Your task to perform on an android device: Do I have any events tomorrow? Image 0: 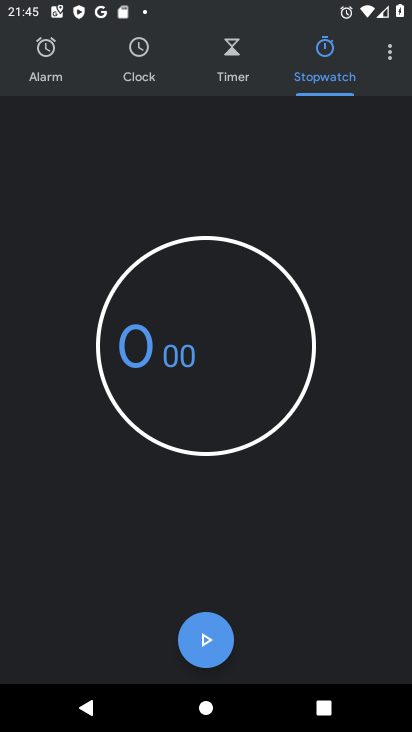
Step 0: press home button
Your task to perform on an android device: Do I have any events tomorrow? Image 1: 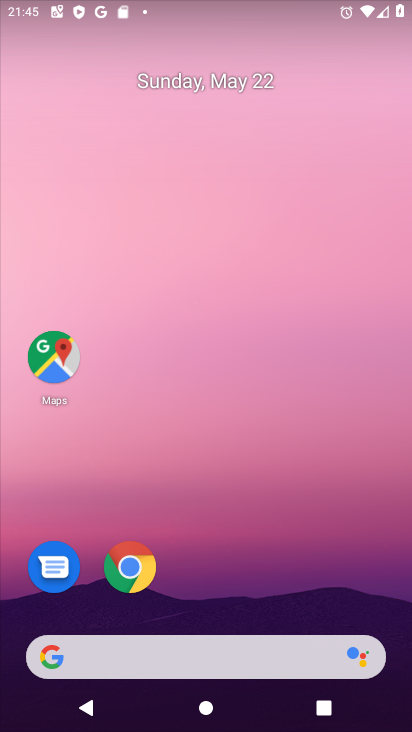
Step 1: drag from (216, 584) to (260, 11)
Your task to perform on an android device: Do I have any events tomorrow? Image 2: 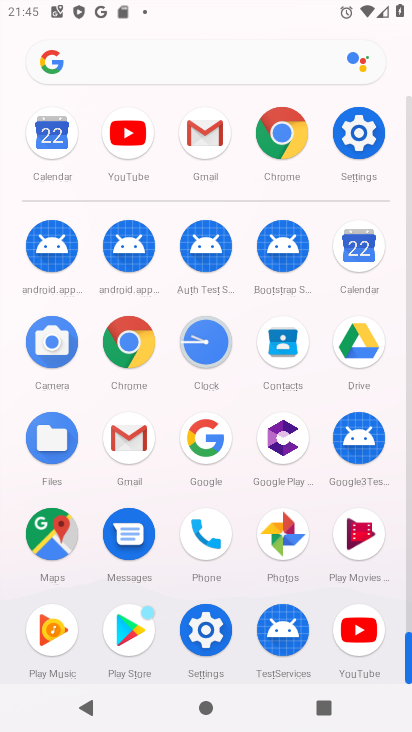
Step 2: click (366, 246)
Your task to perform on an android device: Do I have any events tomorrow? Image 3: 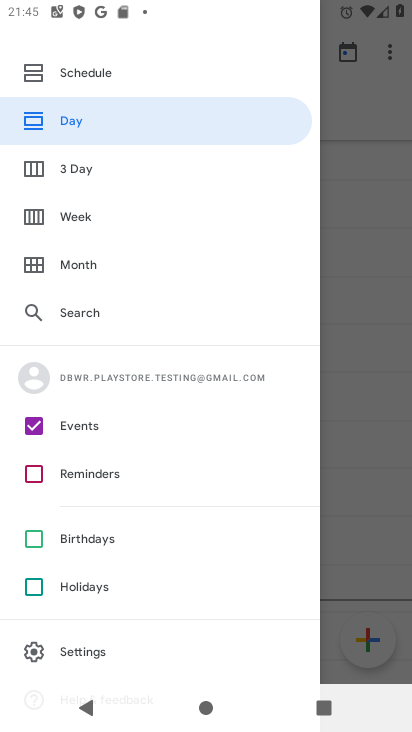
Step 3: click (84, 169)
Your task to perform on an android device: Do I have any events tomorrow? Image 4: 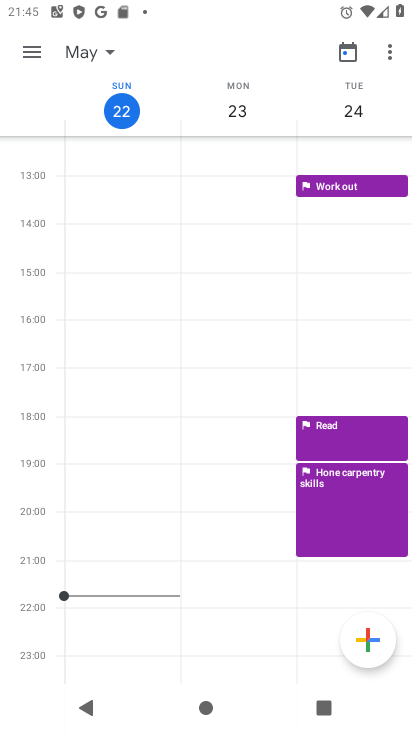
Step 4: drag from (202, 374) to (196, 561)
Your task to perform on an android device: Do I have any events tomorrow? Image 5: 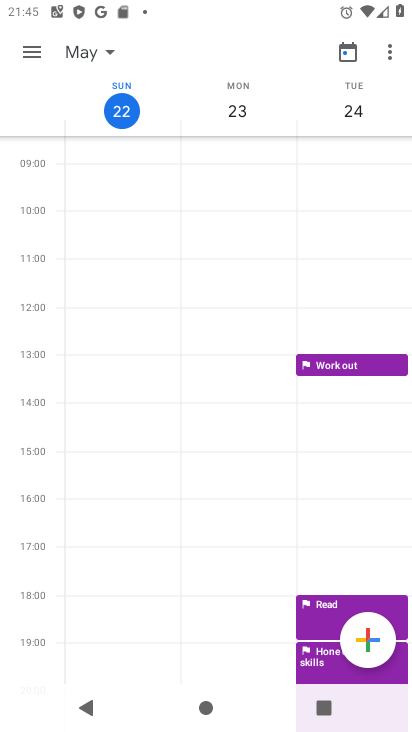
Step 5: click (34, 54)
Your task to perform on an android device: Do I have any events tomorrow? Image 6: 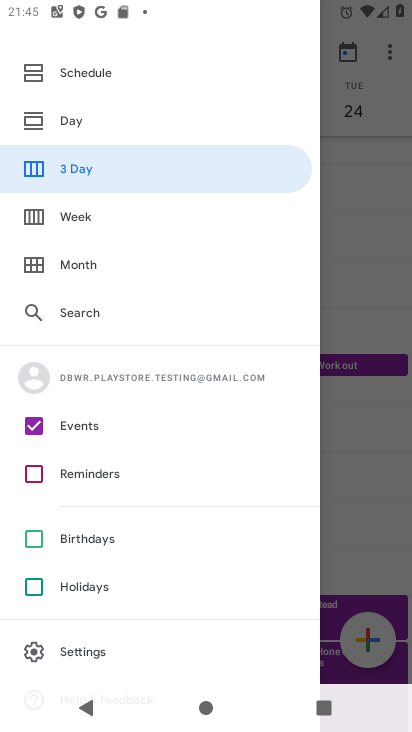
Step 6: click (375, 312)
Your task to perform on an android device: Do I have any events tomorrow? Image 7: 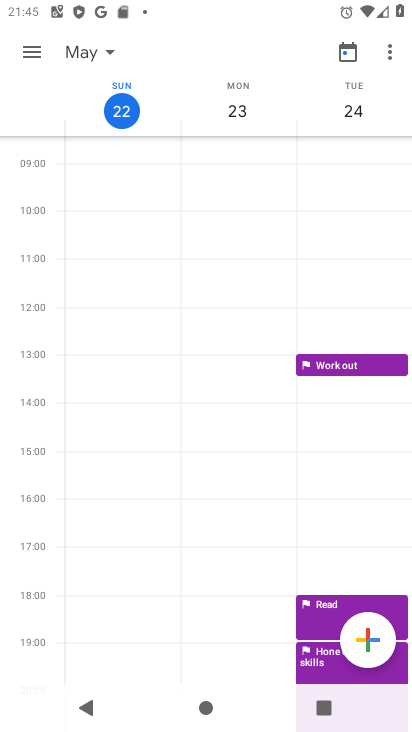
Step 7: task complete